Your task to perform on an android device: Go to CNN.com Image 0: 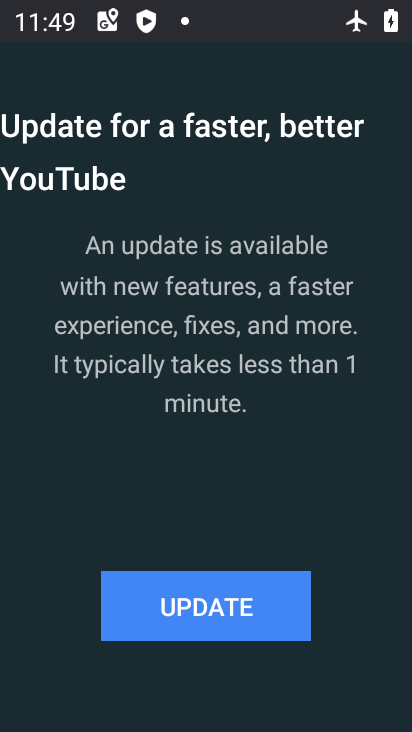
Step 0: drag from (387, 606) to (316, 357)
Your task to perform on an android device: Go to CNN.com Image 1: 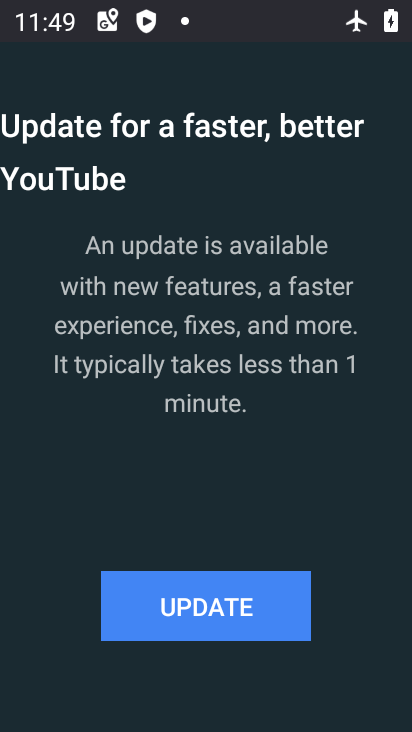
Step 1: press back button
Your task to perform on an android device: Go to CNN.com Image 2: 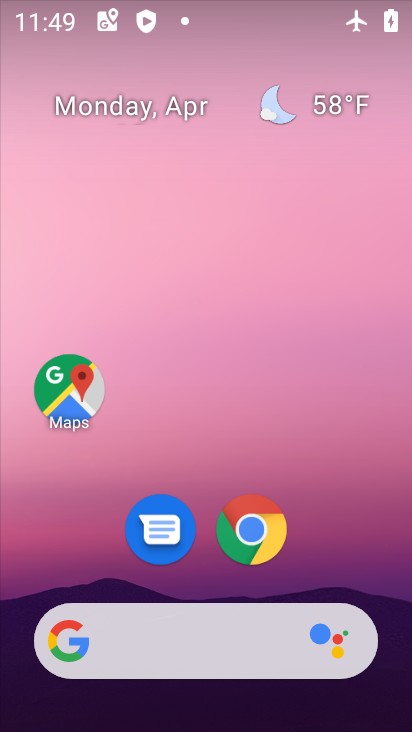
Step 2: drag from (359, 585) to (216, 47)
Your task to perform on an android device: Go to CNN.com Image 3: 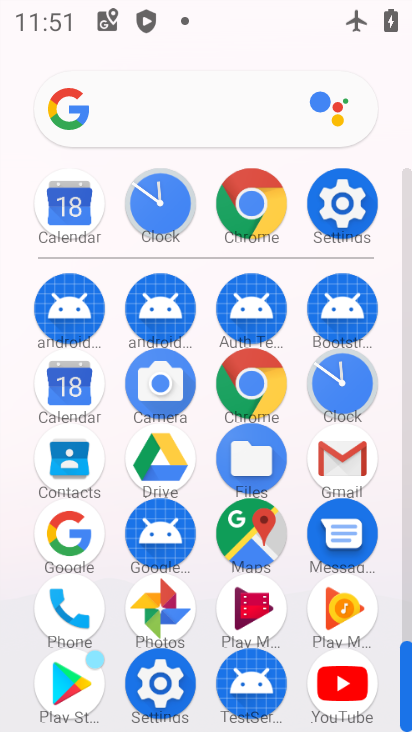
Step 3: click (254, 194)
Your task to perform on an android device: Go to CNN.com Image 4: 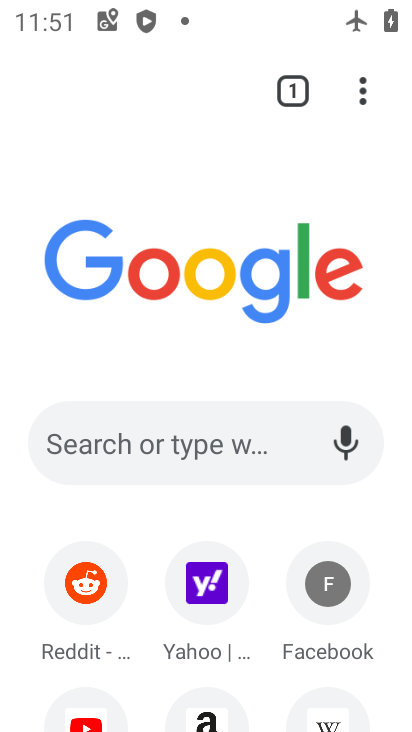
Step 4: drag from (257, 629) to (223, 344)
Your task to perform on an android device: Go to CNN.com Image 5: 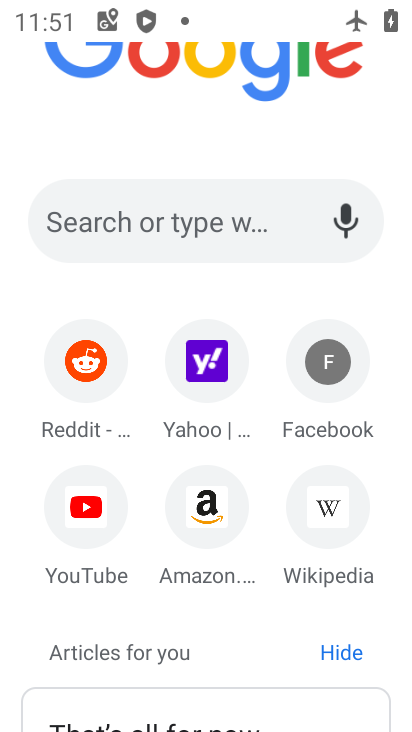
Step 5: click (100, 197)
Your task to perform on an android device: Go to CNN.com Image 6: 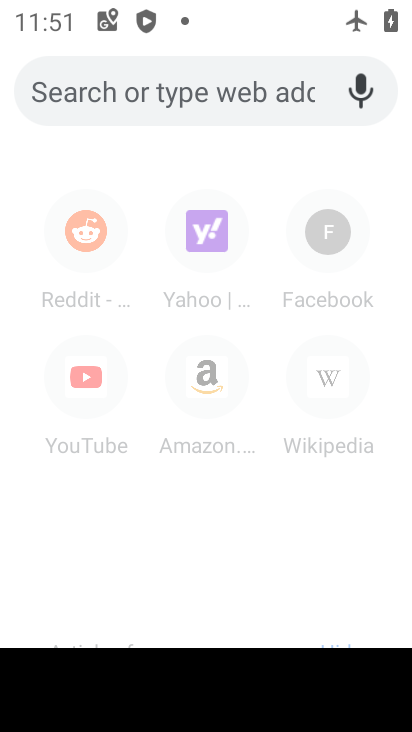
Step 6: type "cnn.com"
Your task to perform on an android device: Go to CNN.com Image 7: 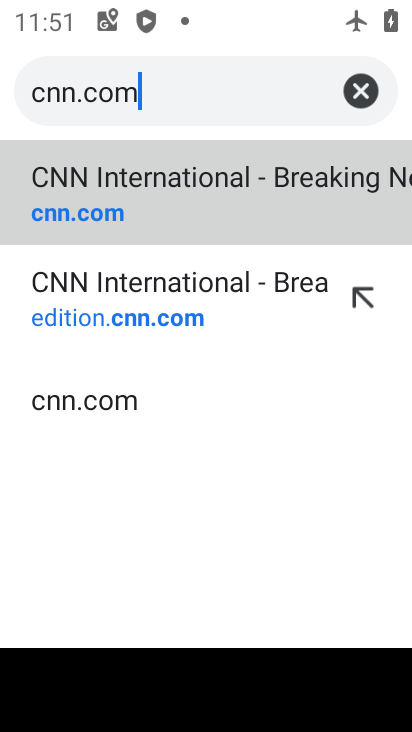
Step 7: click (158, 222)
Your task to perform on an android device: Go to CNN.com Image 8: 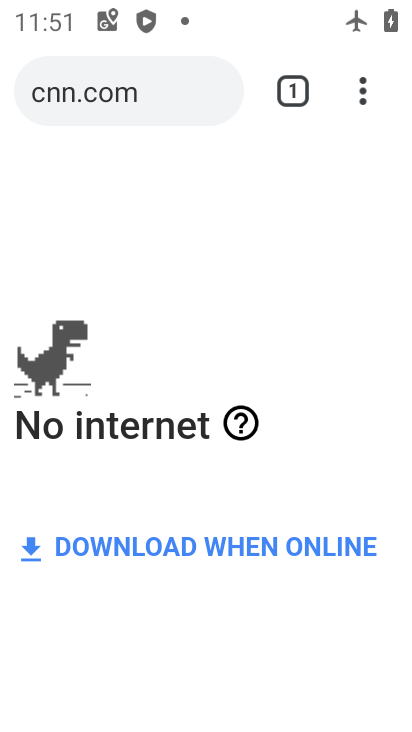
Step 8: task complete